Your task to perform on an android device: Is it going to rain today? Image 0: 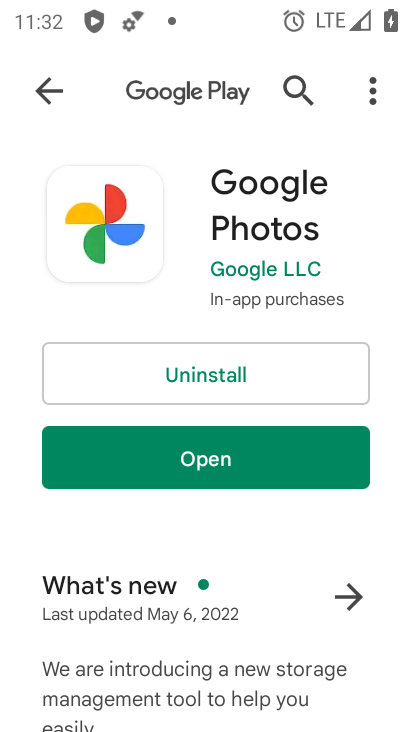
Step 0: press home button
Your task to perform on an android device: Is it going to rain today? Image 1: 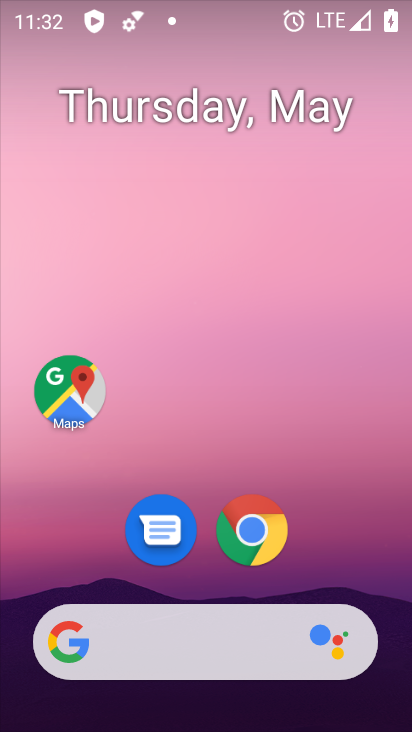
Step 1: click (167, 628)
Your task to perform on an android device: Is it going to rain today? Image 2: 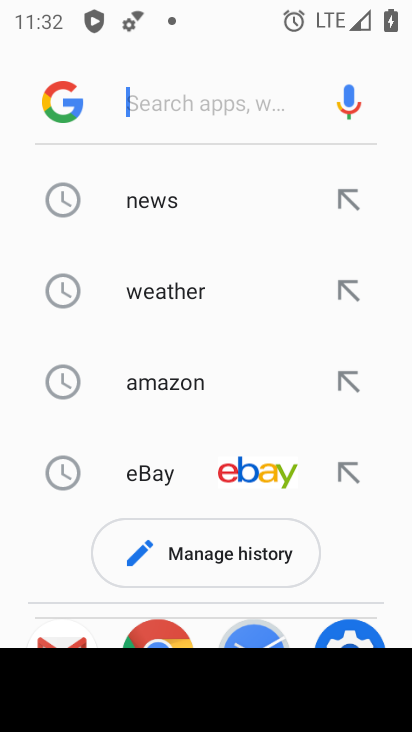
Step 2: type "is it going to rain today"
Your task to perform on an android device: Is it going to rain today? Image 3: 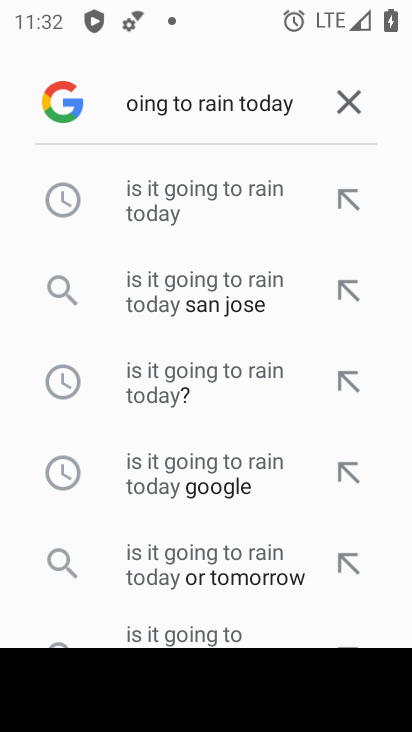
Step 3: click (208, 194)
Your task to perform on an android device: Is it going to rain today? Image 4: 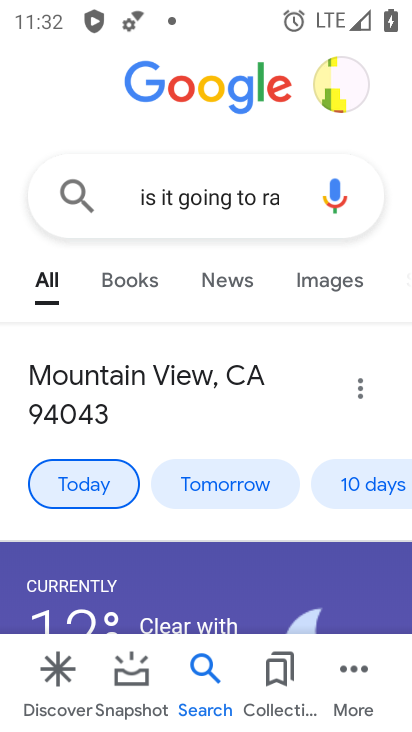
Step 4: task complete